Your task to perform on an android device: change timer sound Image 0: 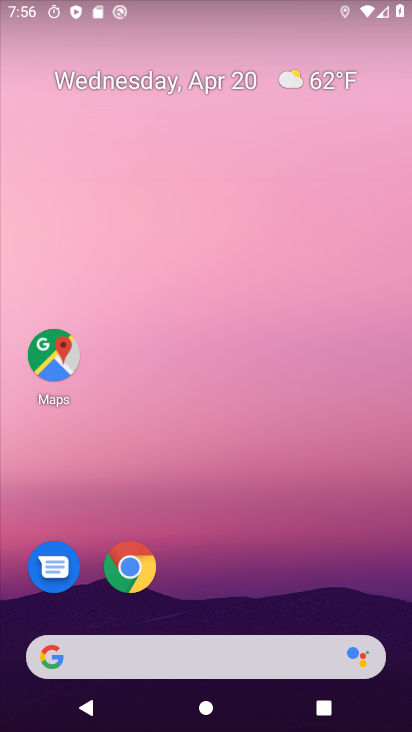
Step 0: drag from (376, 572) to (369, 10)
Your task to perform on an android device: change timer sound Image 1: 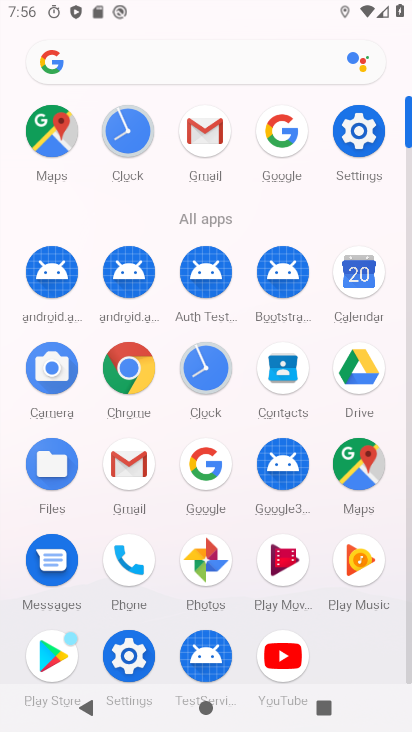
Step 1: click (127, 130)
Your task to perform on an android device: change timer sound Image 2: 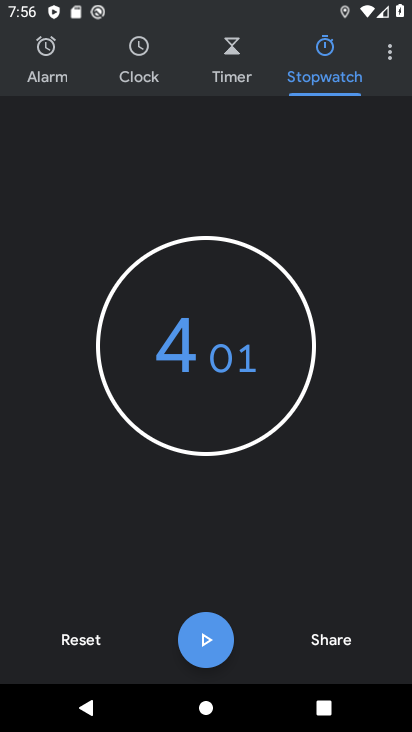
Step 2: click (392, 55)
Your task to perform on an android device: change timer sound Image 3: 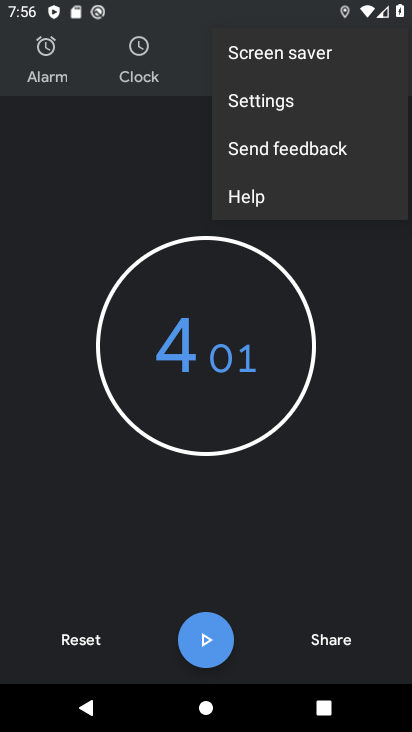
Step 3: click (263, 96)
Your task to perform on an android device: change timer sound Image 4: 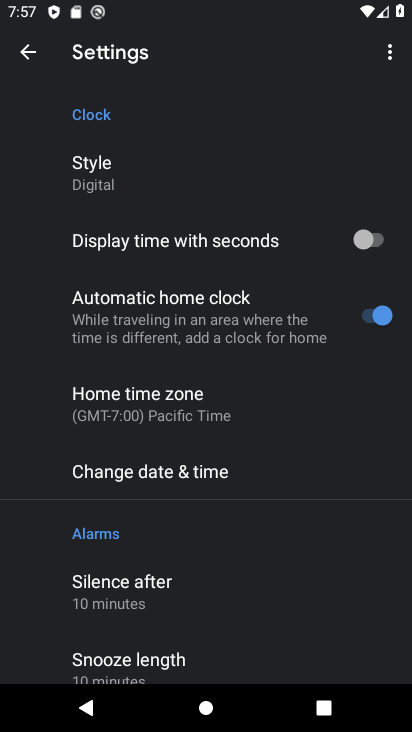
Step 4: drag from (352, 554) to (337, 137)
Your task to perform on an android device: change timer sound Image 5: 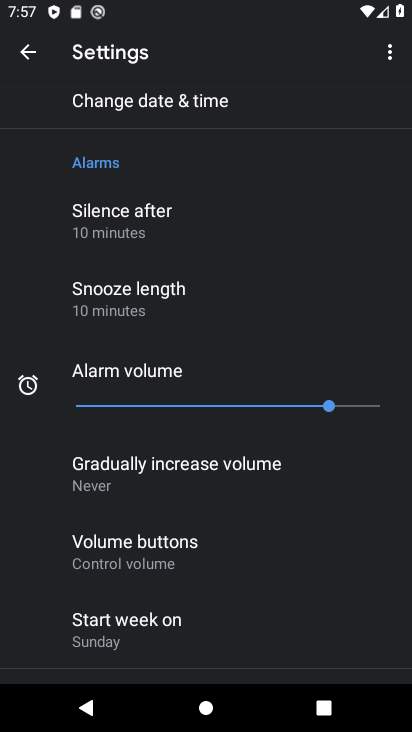
Step 5: drag from (260, 486) to (274, 178)
Your task to perform on an android device: change timer sound Image 6: 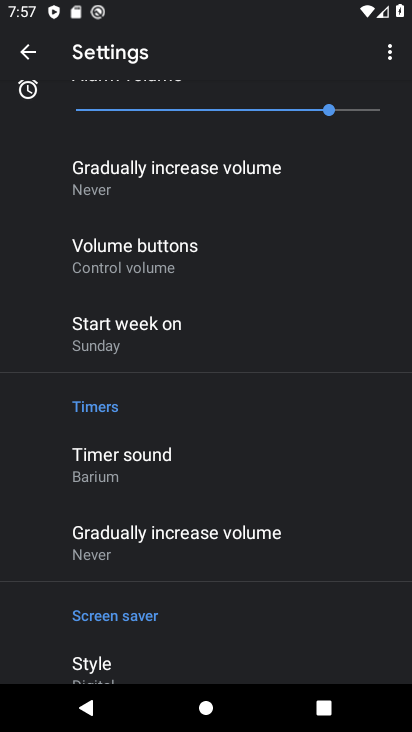
Step 6: click (120, 457)
Your task to perform on an android device: change timer sound Image 7: 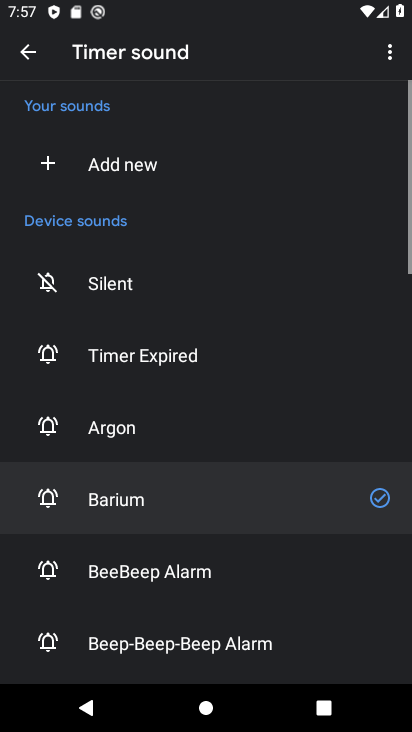
Step 7: click (93, 406)
Your task to perform on an android device: change timer sound Image 8: 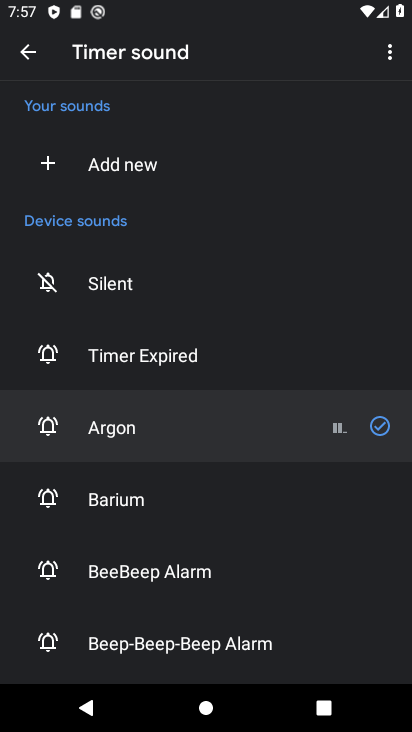
Step 8: task complete